Your task to perform on an android device: check the backup settings in the google photos Image 0: 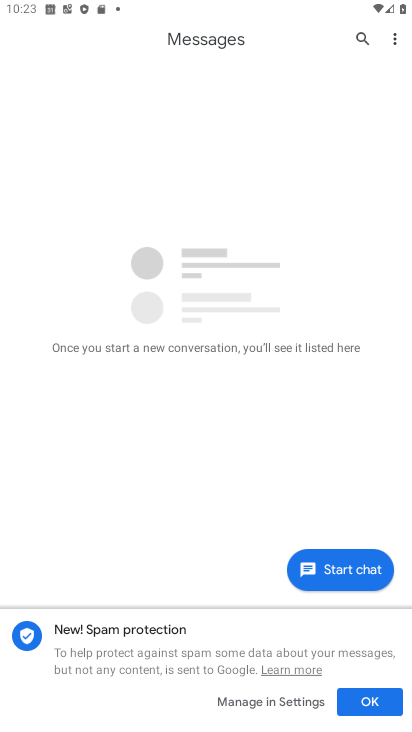
Step 0: press home button
Your task to perform on an android device: check the backup settings in the google photos Image 1: 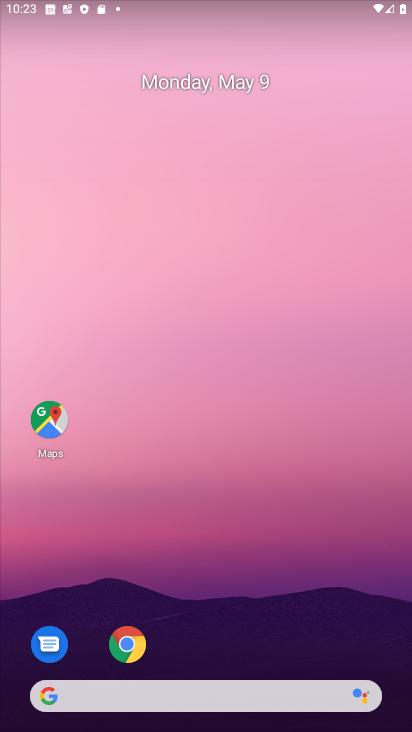
Step 1: drag from (206, 643) to (278, 153)
Your task to perform on an android device: check the backup settings in the google photos Image 2: 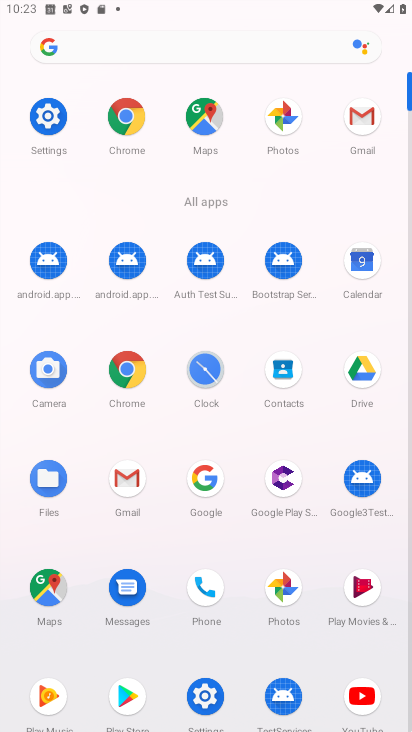
Step 2: click (273, 596)
Your task to perform on an android device: check the backup settings in the google photos Image 3: 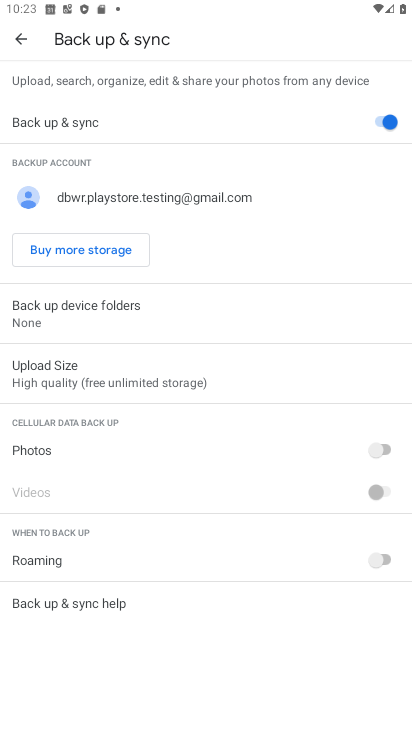
Step 3: task complete